Your task to perform on an android device: Search for "macbook air" on costco, select the first entry, add it to the cart, then select checkout. Image 0: 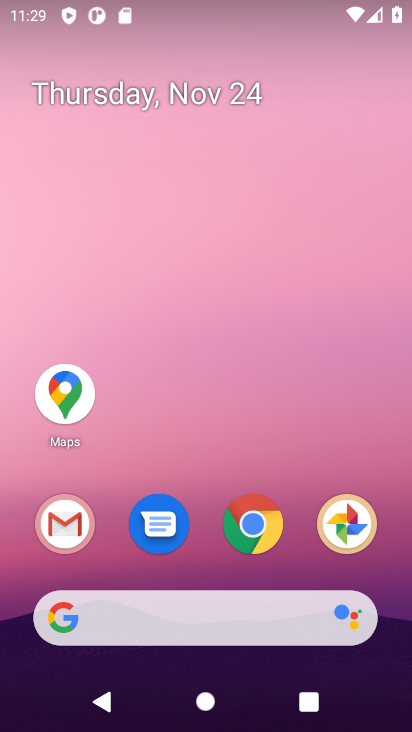
Step 0: click (256, 521)
Your task to perform on an android device: Search for "macbook air" on costco, select the first entry, add it to the cart, then select checkout. Image 1: 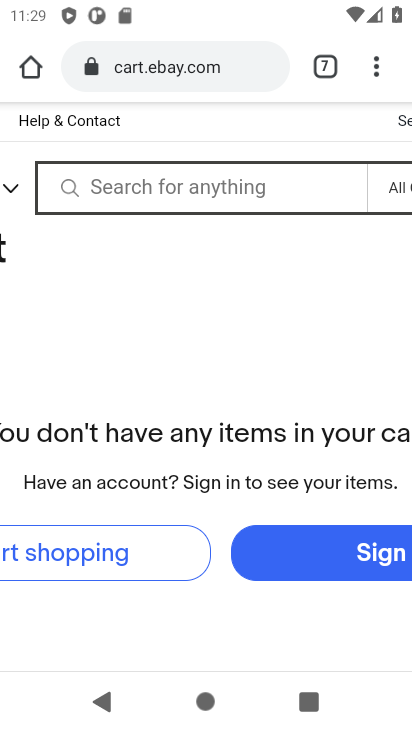
Step 1: click (152, 67)
Your task to perform on an android device: Search for "macbook air" on costco, select the first entry, add it to the cart, then select checkout. Image 2: 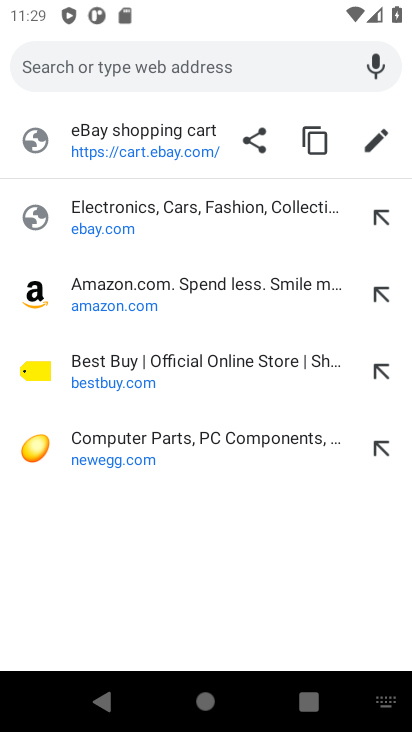
Step 2: type "costco.com"
Your task to perform on an android device: Search for "macbook air" on costco, select the first entry, add it to the cart, then select checkout. Image 3: 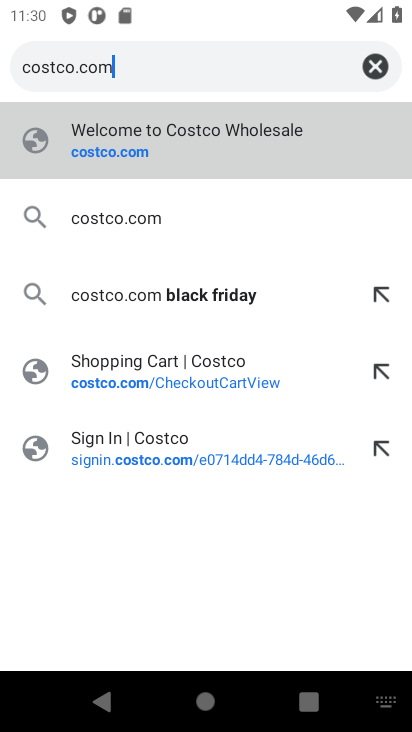
Step 3: click (119, 148)
Your task to perform on an android device: Search for "macbook air" on costco, select the first entry, add it to the cart, then select checkout. Image 4: 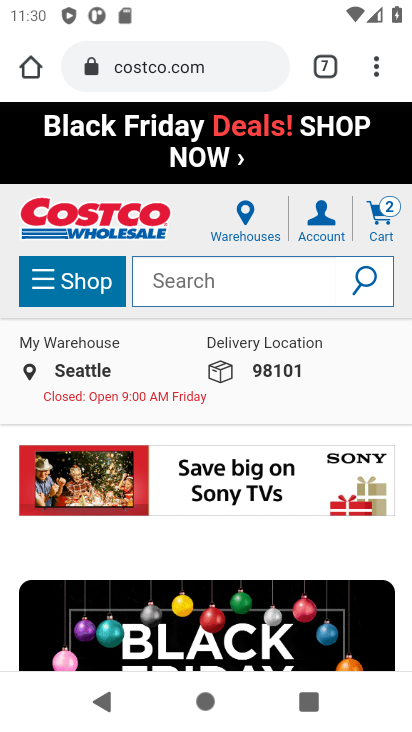
Step 4: click (214, 282)
Your task to perform on an android device: Search for "macbook air" on costco, select the first entry, add it to the cart, then select checkout. Image 5: 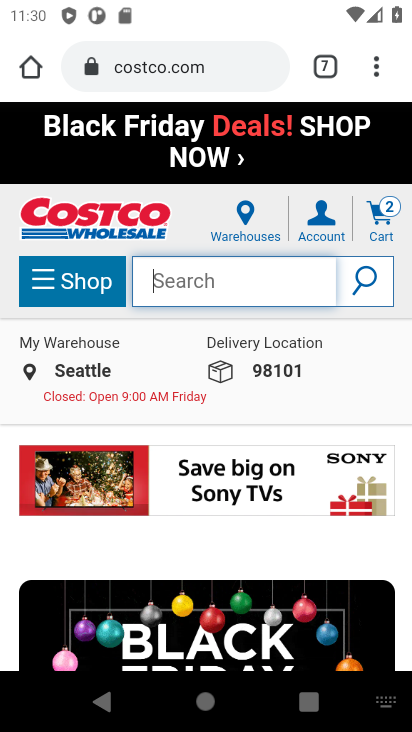
Step 5: type "macbook air"
Your task to perform on an android device: Search for "macbook air" on costco, select the first entry, add it to the cart, then select checkout. Image 6: 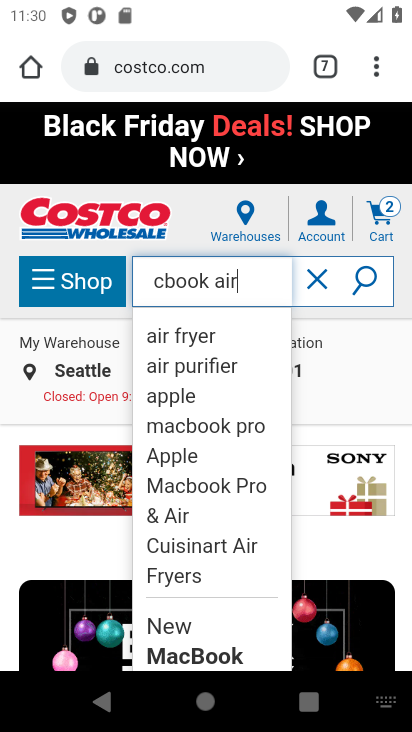
Step 6: click (366, 282)
Your task to perform on an android device: Search for "macbook air" on costco, select the first entry, add it to the cart, then select checkout. Image 7: 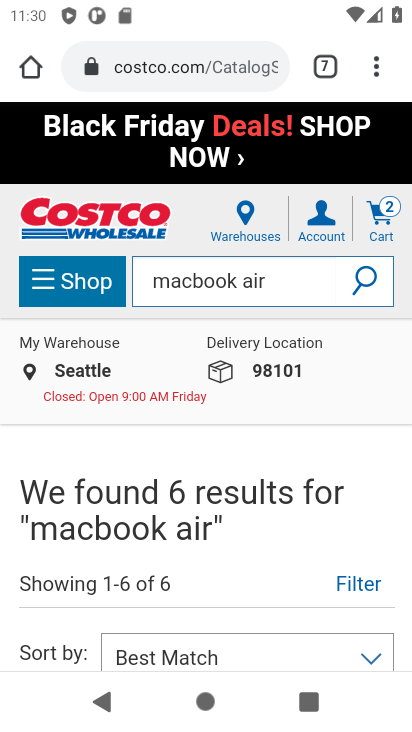
Step 7: drag from (247, 498) to (237, 243)
Your task to perform on an android device: Search for "macbook air" on costco, select the first entry, add it to the cart, then select checkout. Image 8: 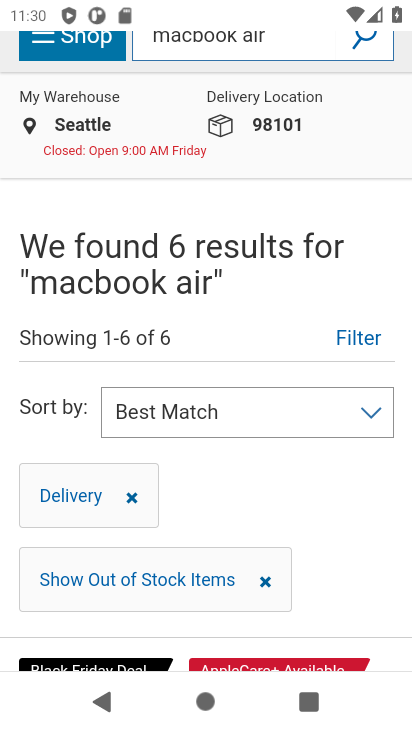
Step 8: drag from (210, 503) to (200, 203)
Your task to perform on an android device: Search for "macbook air" on costco, select the first entry, add it to the cart, then select checkout. Image 9: 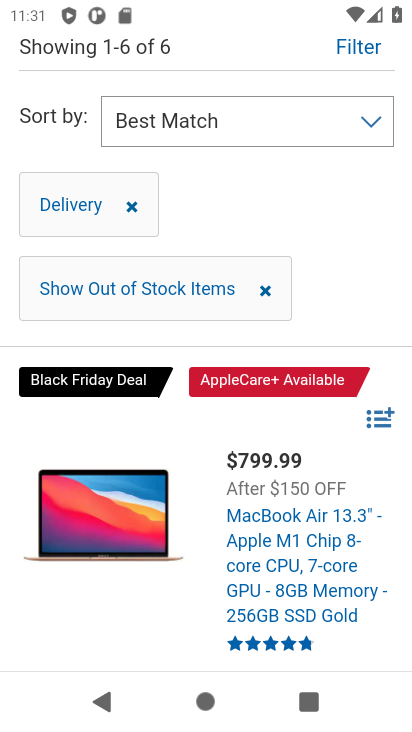
Step 9: drag from (184, 544) to (197, 353)
Your task to perform on an android device: Search for "macbook air" on costco, select the first entry, add it to the cart, then select checkout. Image 10: 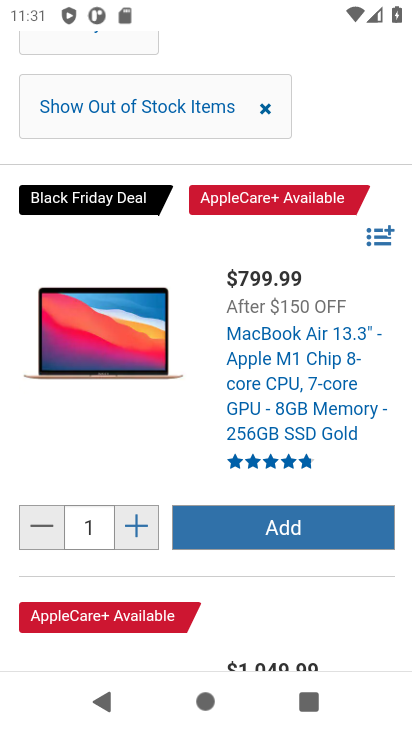
Step 10: click (259, 532)
Your task to perform on an android device: Search for "macbook air" on costco, select the first entry, add it to the cart, then select checkout. Image 11: 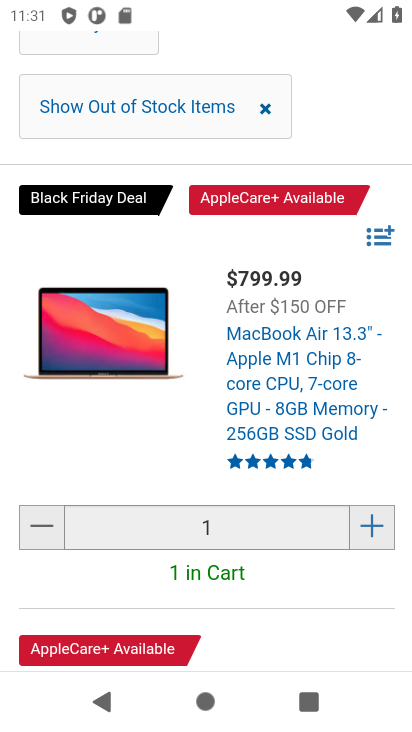
Step 11: drag from (201, 309) to (212, 512)
Your task to perform on an android device: Search for "macbook air" on costco, select the first entry, add it to the cart, then select checkout. Image 12: 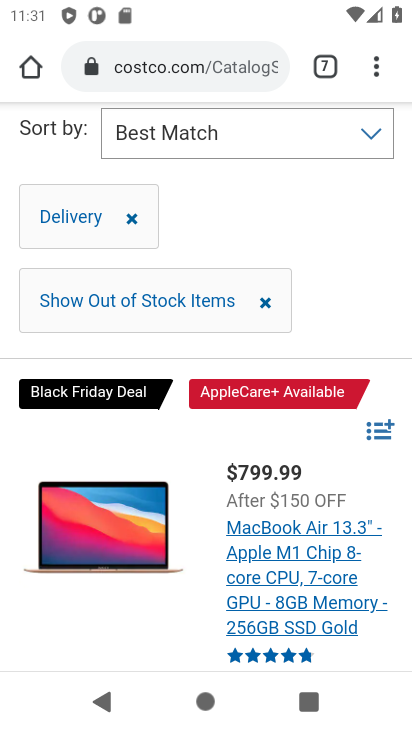
Step 12: drag from (336, 194) to (341, 380)
Your task to perform on an android device: Search for "macbook air" on costco, select the first entry, add it to the cart, then select checkout. Image 13: 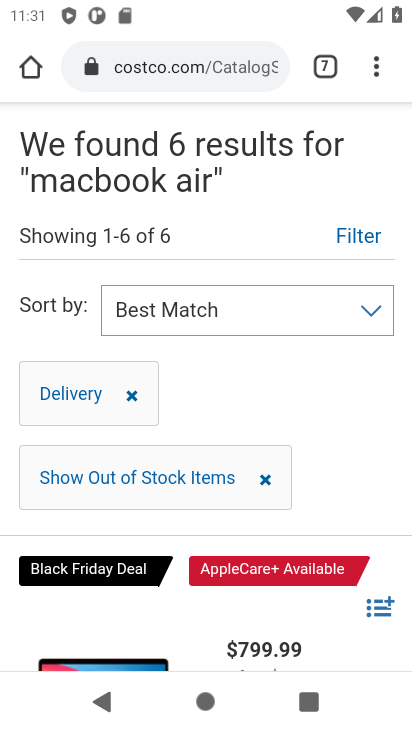
Step 13: drag from (365, 192) to (330, 400)
Your task to perform on an android device: Search for "macbook air" on costco, select the first entry, add it to the cart, then select checkout. Image 14: 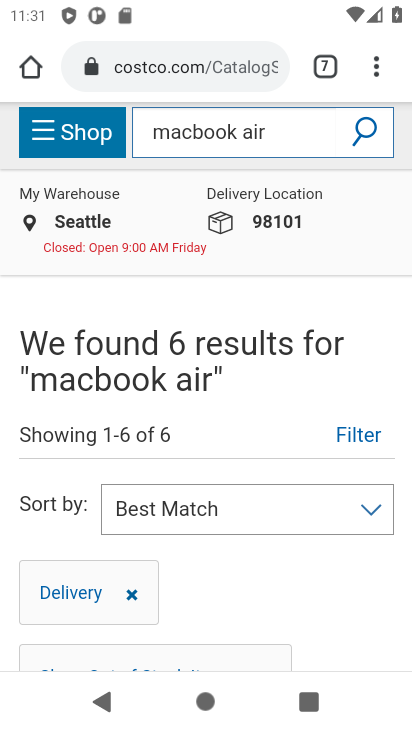
Step 14: drag from (352, 209) to (353, 372)
Your task to perform on an android device: Search for "macbook air" on costco, select the first entry, add it to the cart, then select checkout. Image 15: 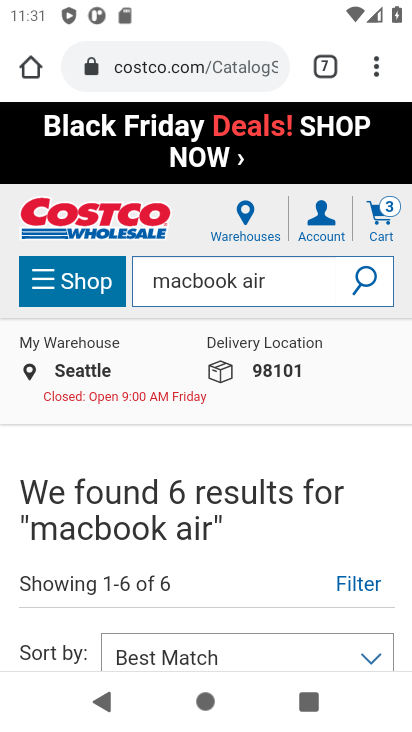
Step 15: click (380, 220)
Your task to perform on an android device: Search for "macbook air" on costco, select the first entry, add it to the cart, then select checkout. Image 16: 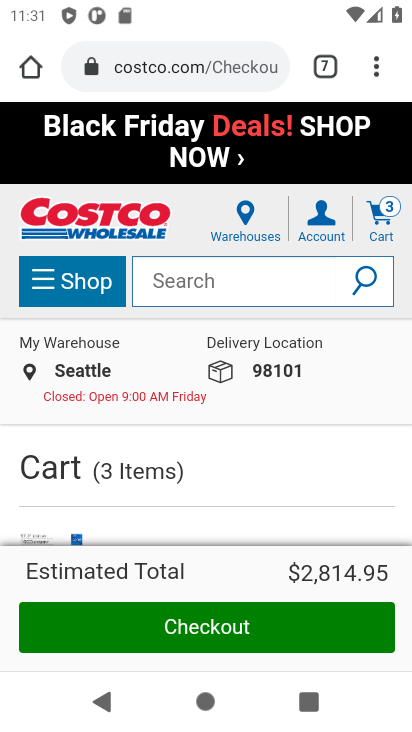
Step 16: click (181, 632)
Your task to perform on an android device: Search for "macbook air" on costco, select the first entry, add it to the cart, then select checkout. Image 17: 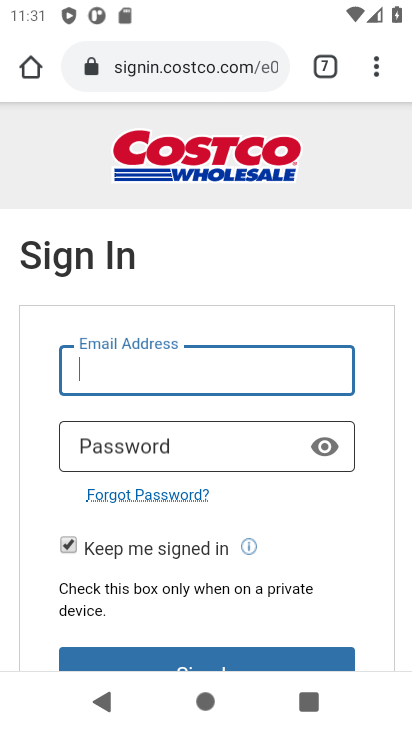
Step 17: task complete